Your task to perform on an android device: refresh tabs in the chrome app Image 0: 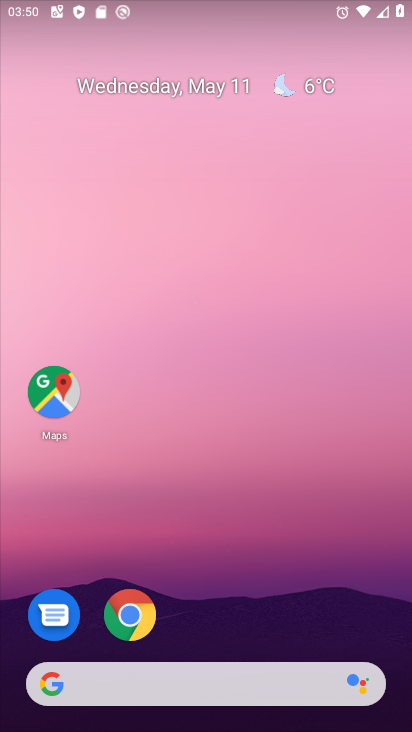
Step 0: click (292, 548)
Your task to perform on an android device: refresh tabs in the chrome app Image 1: 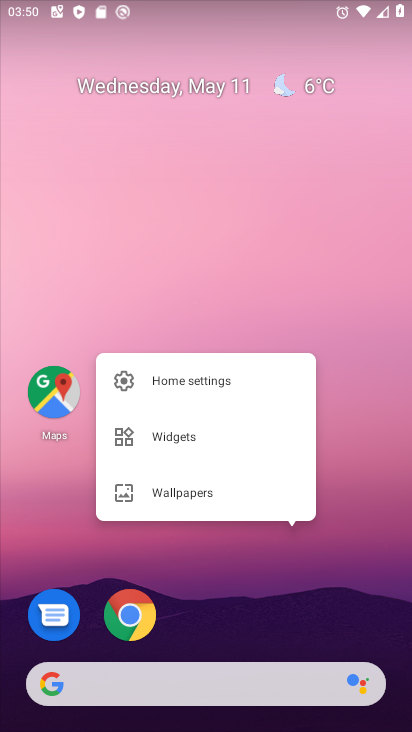
Step 1: click (127, 611)
Your task to perform on an android device: refresh tabs in the chrome app Image 2: 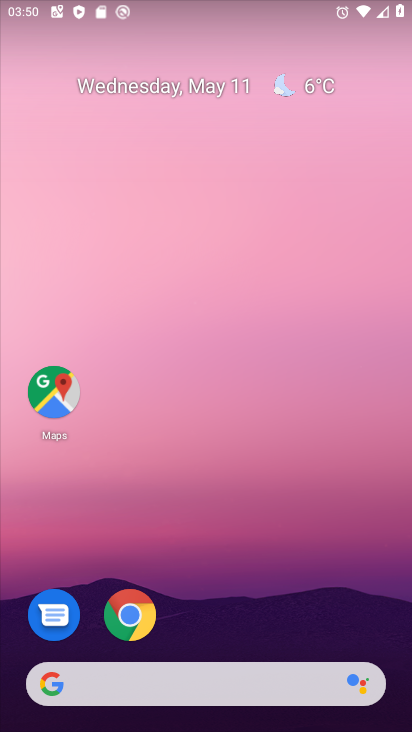
Step 2: click (124, 614)
Your task to perform on an android device: refresh tabs in the chrome app Image 3: 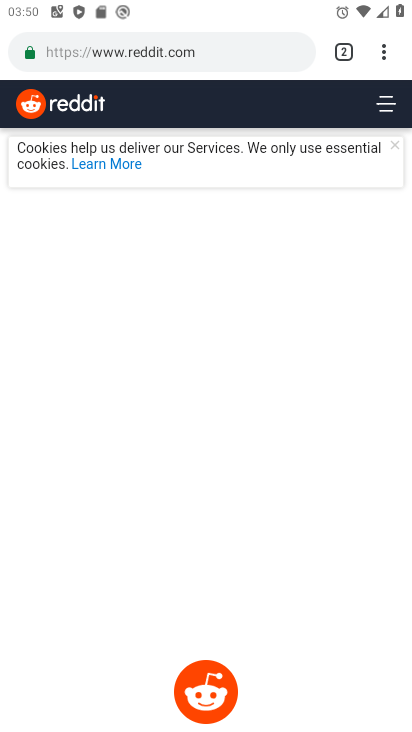
Step 3: click (388, 49)
Your task to perform on an android device: refresh tabs in the chrome app Image 4: 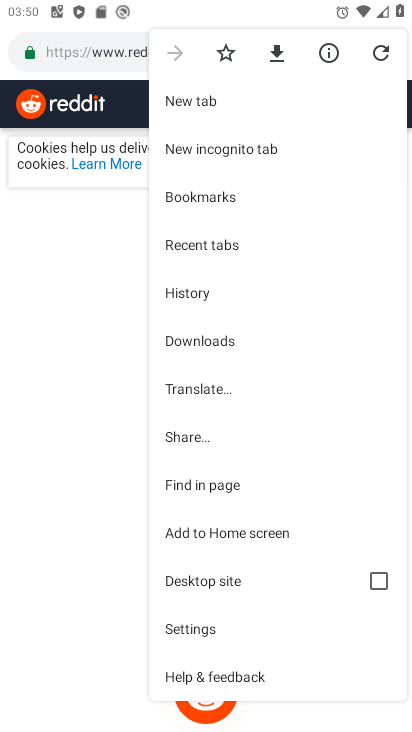
Step 4: click (388, 49)
Your task to perform on an android device: refresh tabs in the chrome app Image 5: 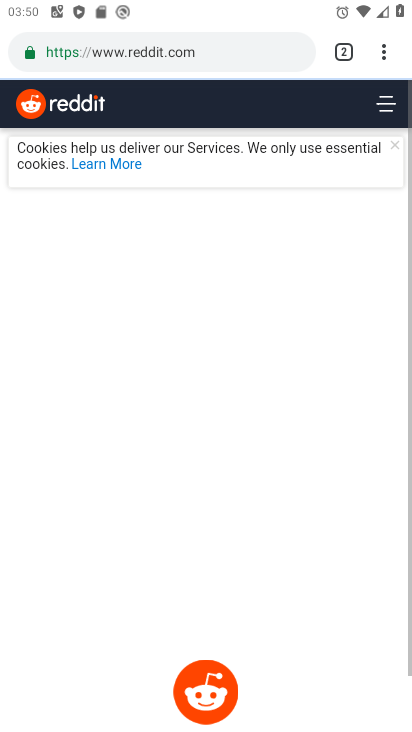
Step 5: task complete